Your task to perform on an android device: read, delete, or share a saved page in the chrome app Image 0: 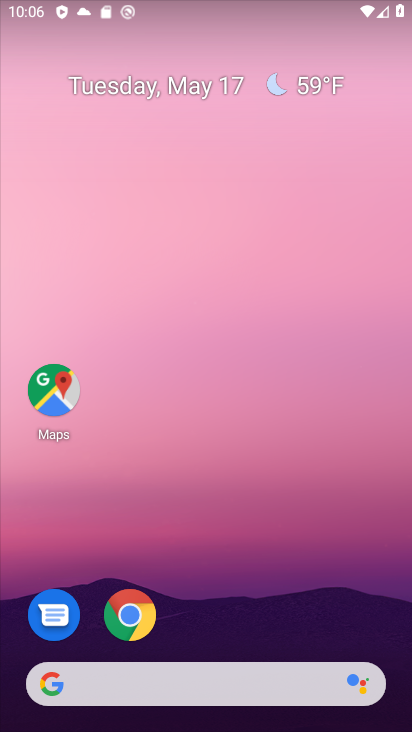
Step 0: drag from (256, 638) to (224, 33)
Your task to perform on an android device: read, delete, or share a saved page in the chrome app Image 1: 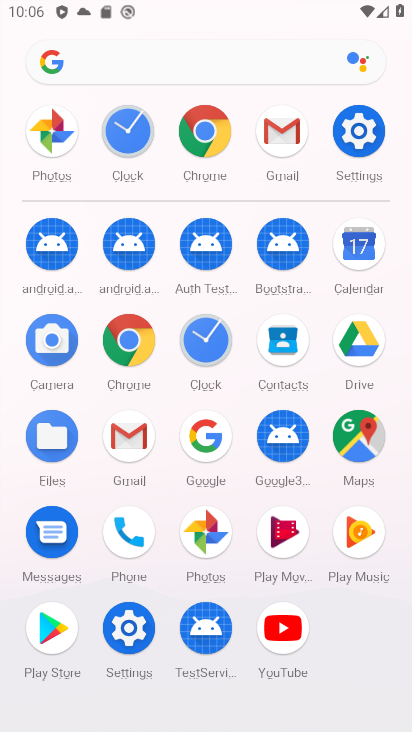
Step 1: click (217, 151)
Your task to perform on an android device: read, delete, or share a saved page in the chrome app Image 2: 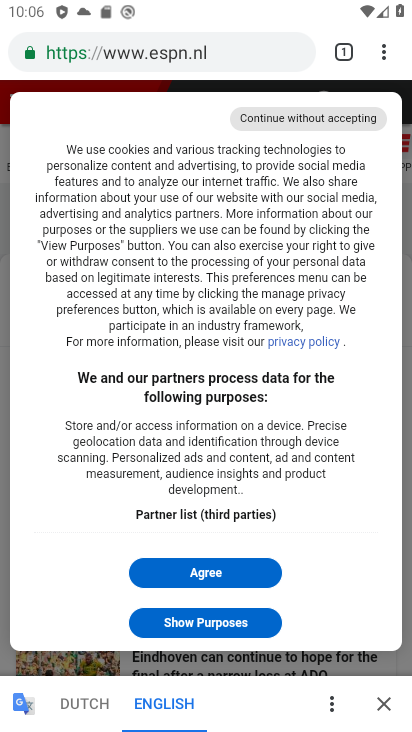
Step 2: click (386, 48)
Your task to perform on an android device: read, delete, or share a saved page in the chrome app Image 3: 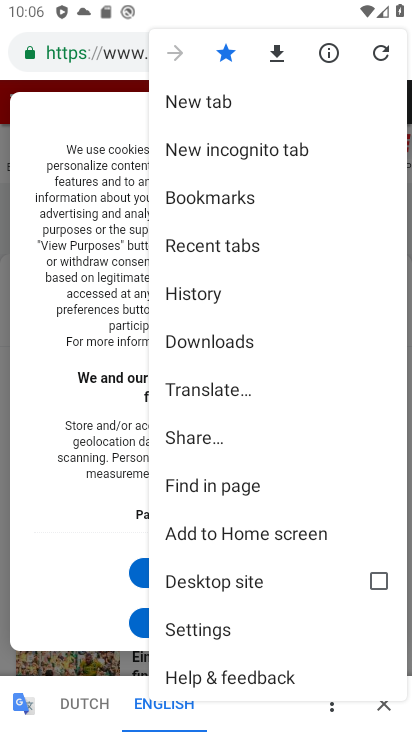
Step 3: task complete